Your task to perform on an android device: find snoozed emails in the gmail app Image 0: 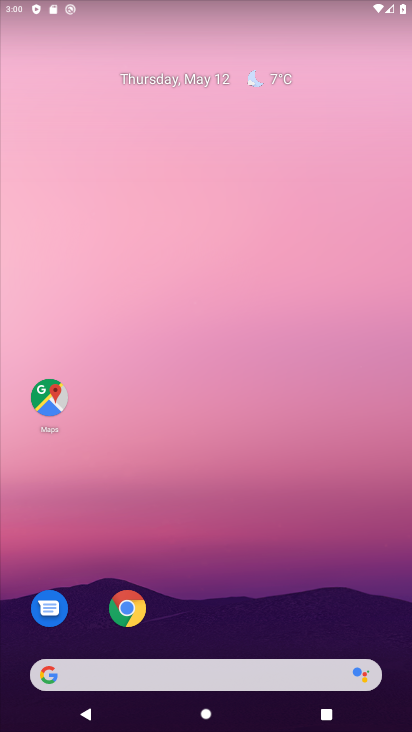
Step 0: drag from (249, 614) to (251, 154)
Your task to perform on an android device: find snoozed emails in the gmail app Image 1: 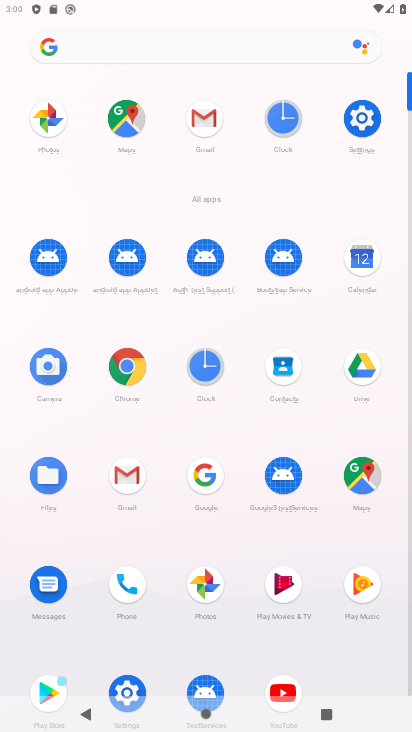
Step 1: click (210, 104)
Your task to perform on an android device: find snoozed emails in the gmail app Image 2: 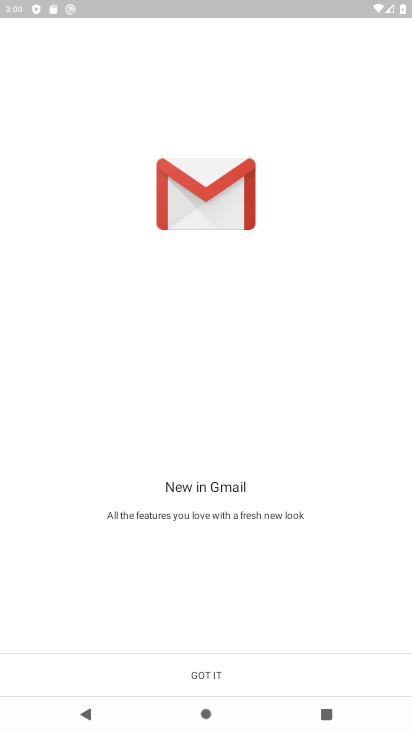
Step 2: click (123, 687)
Your task to perform on an android device: find snoozed emails in the gmail app Image 3: 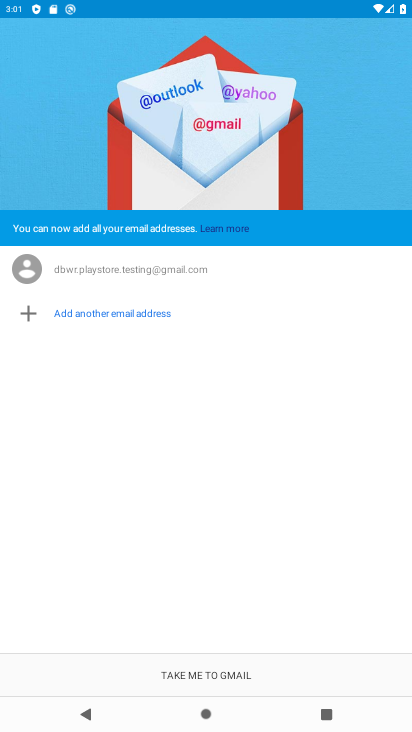
Step 3: click (162, 667)
Your task to perform on an android device: find snoozed emails in the gmail app Image 4: 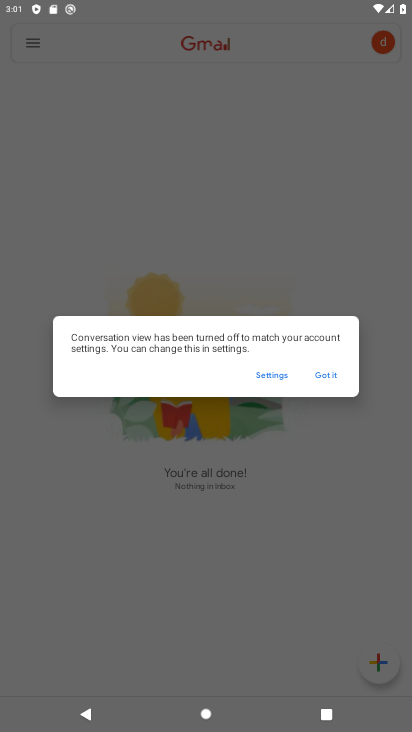
Step 4: click (323, 370)
Your task to perform on an android device: find snoozed emails in the gmail app Image 5: 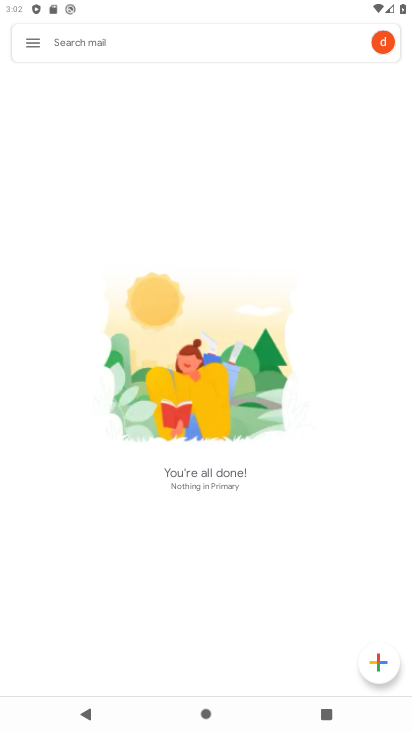
Step 5: click (36, 45)
Your task to perform on an android device: find snoozed emails in the gmail app Image 6: 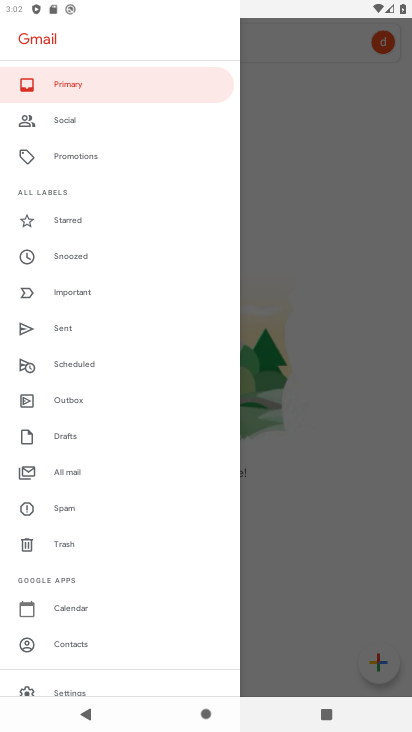
Step 6: click (66, 265)
Your task to perform on an android device: find snoozed emails in the gmail app Image 7: 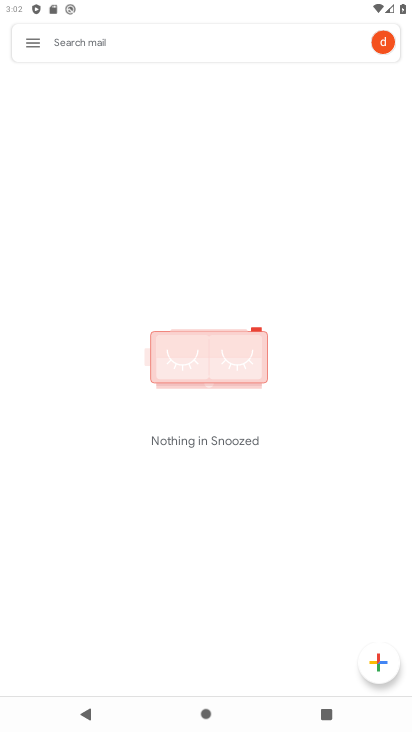
Step 7: task complete